Your task to perform on an android device: Check the weather Image 0: 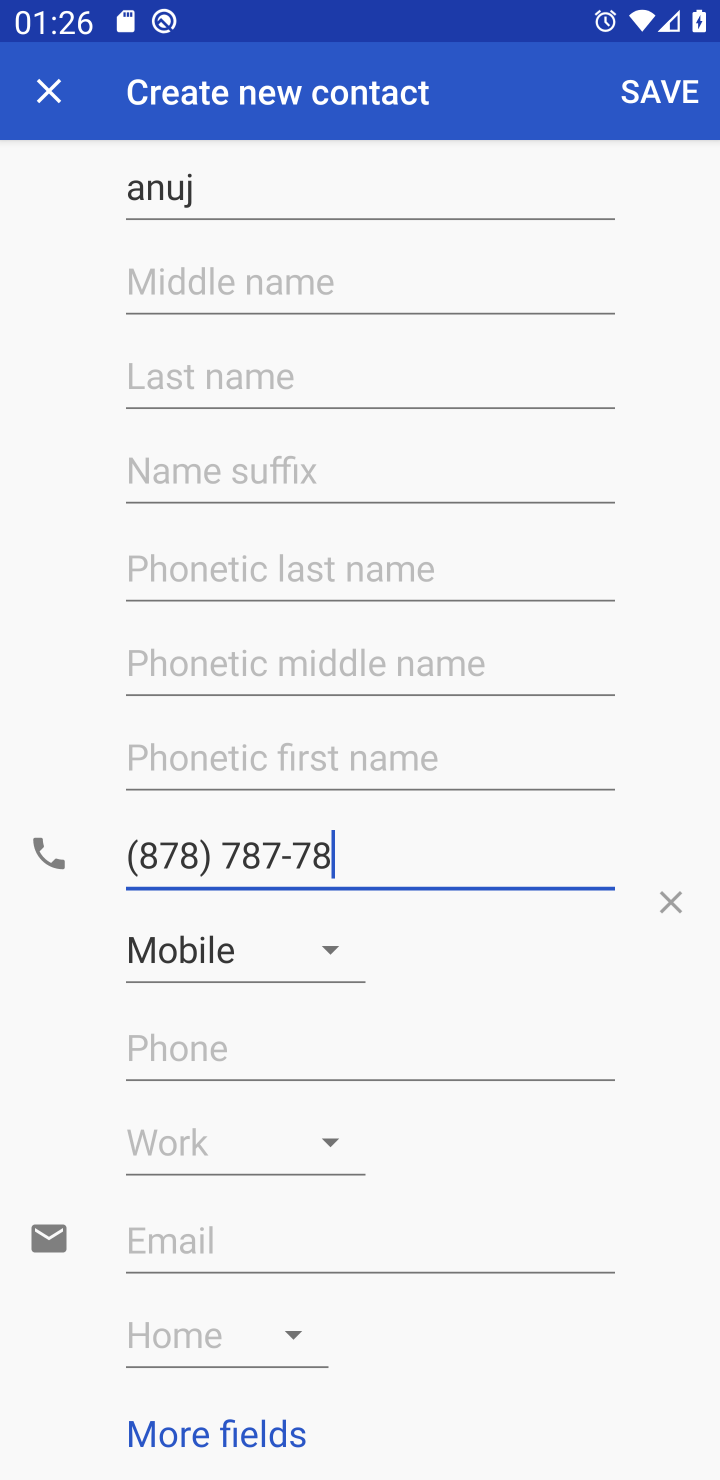
Step 0: press home button
Your task to perform on an android device: Check the weather Image 1: 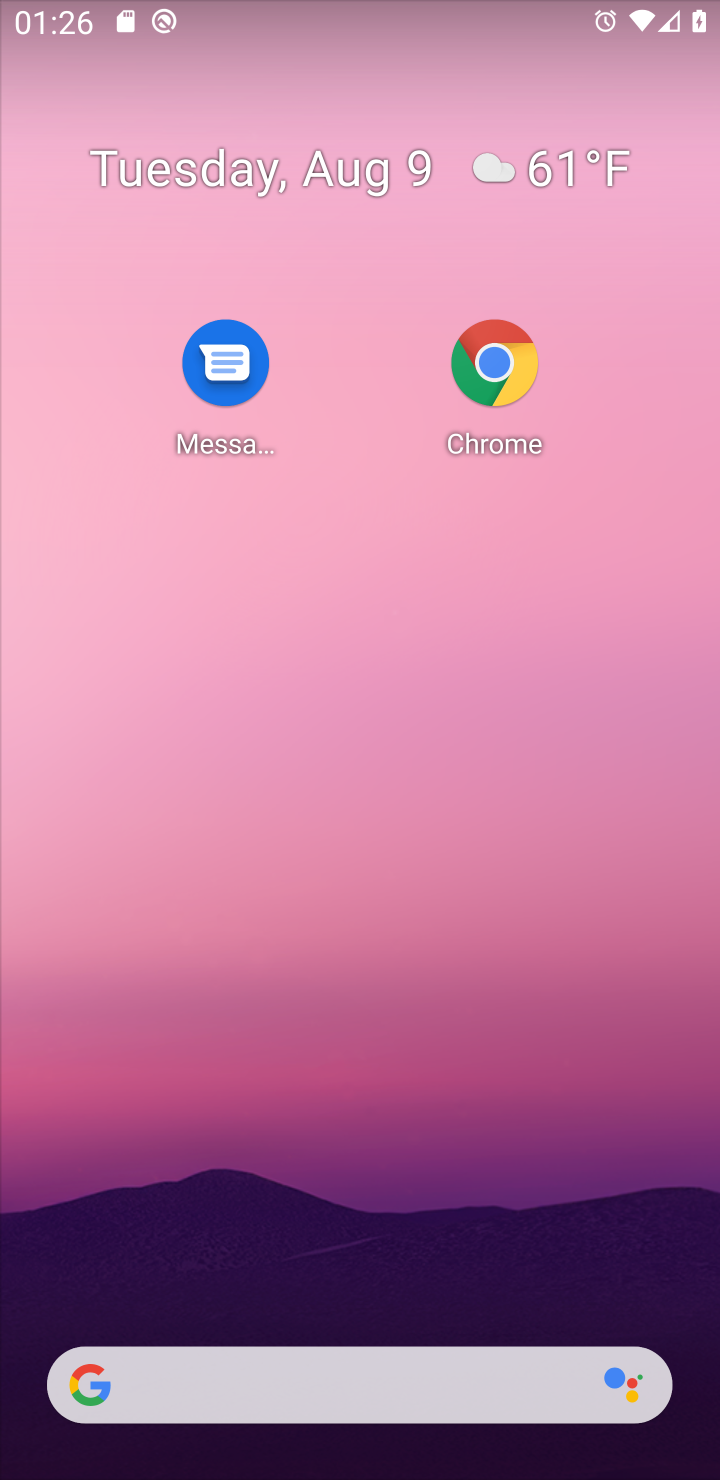
Step 1: drag from (395, 1273) to (447, 272)
Your task to perform on an android device: Check the weather Image 2: 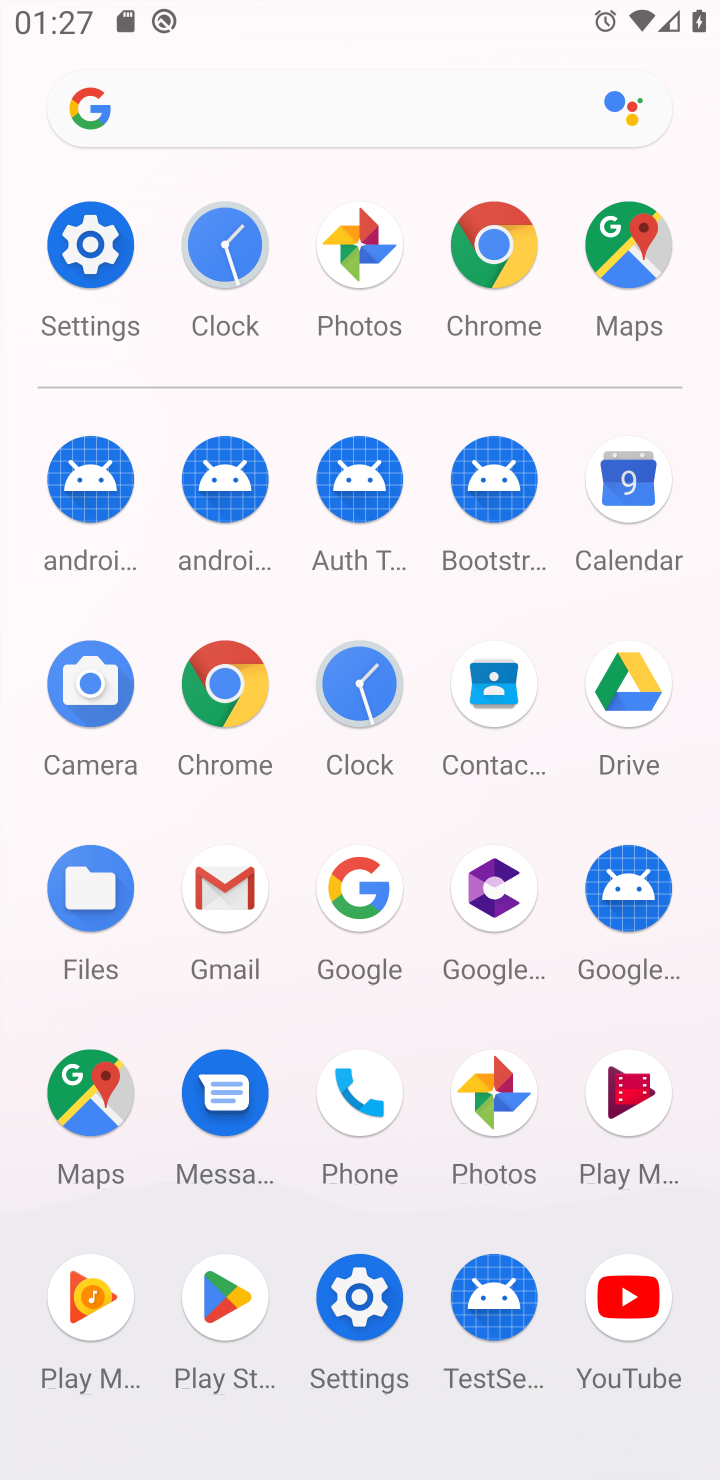
Step 2: click (241, 678)
Your task to perform on an android device: Check the weather Image 3: 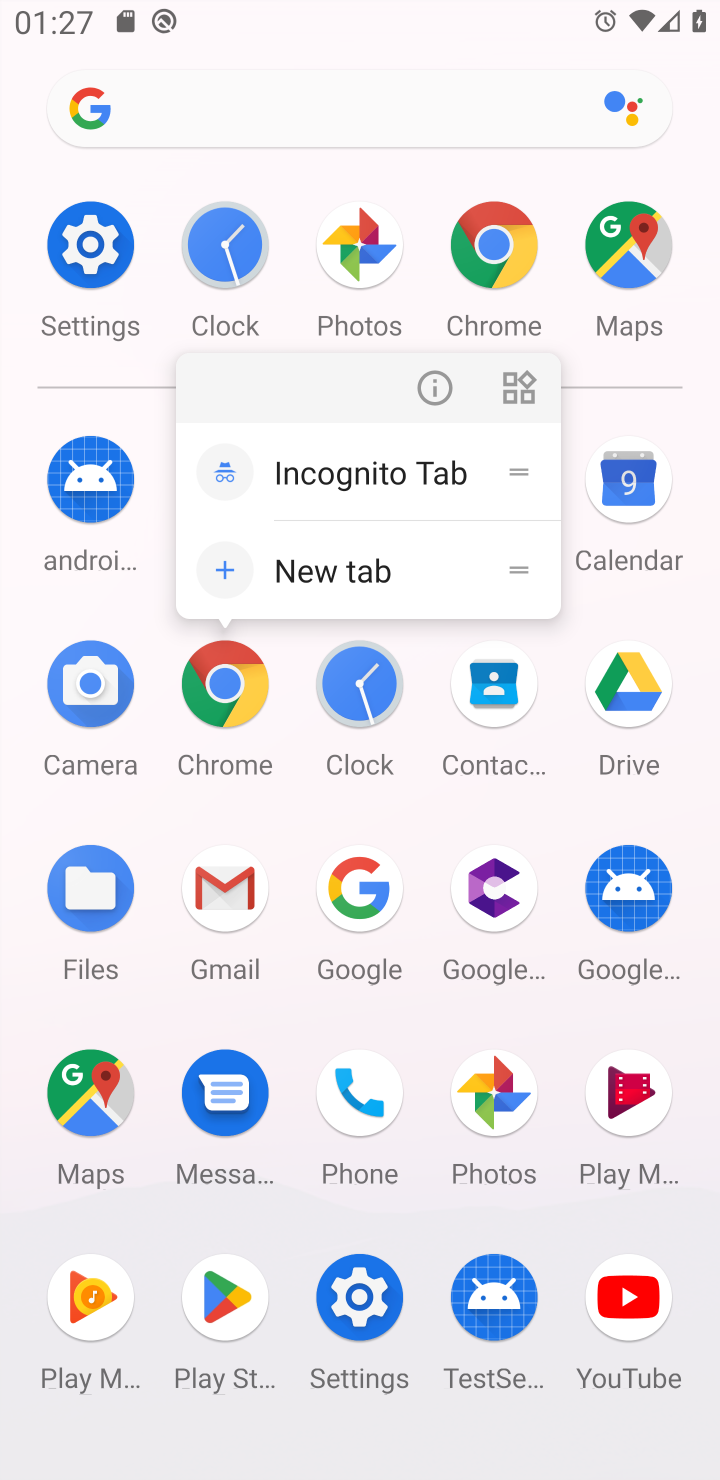
Step 3: click (241, 678)
Your task to perform on an android device: Check the weather Image 4: 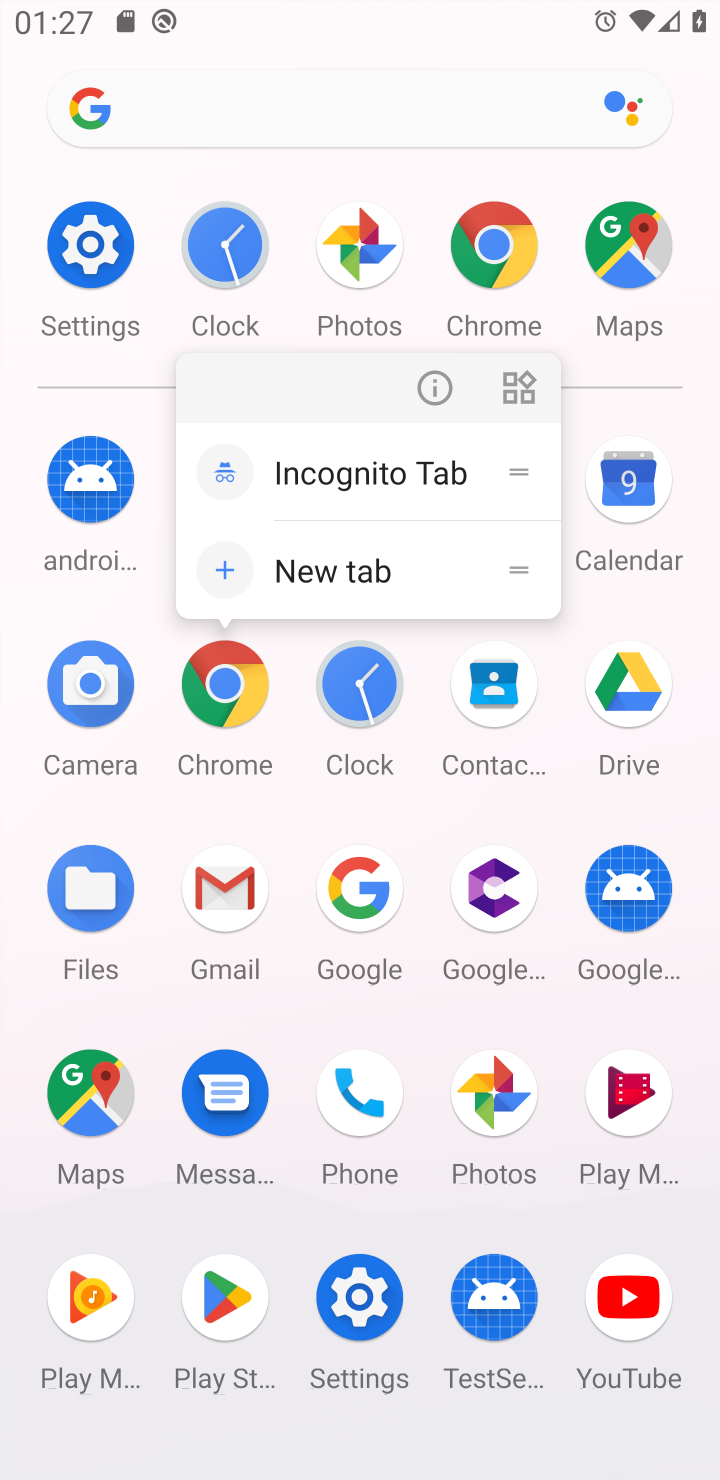
Step 4: click (231, 674)
Your task to perform on an android device: Check the weather Image 5: 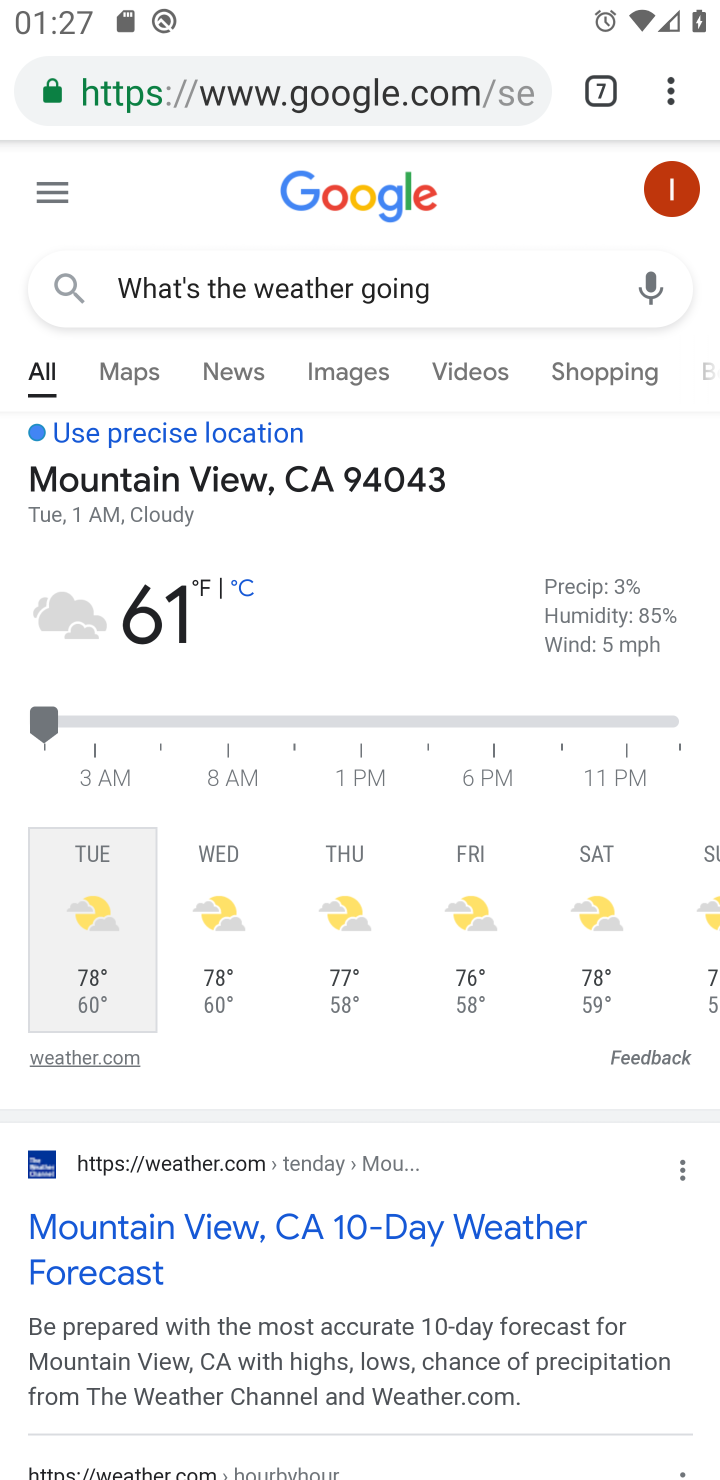
Step 5: click (676, 87)
Your task to perform on an android device: Check the weather Image 6: 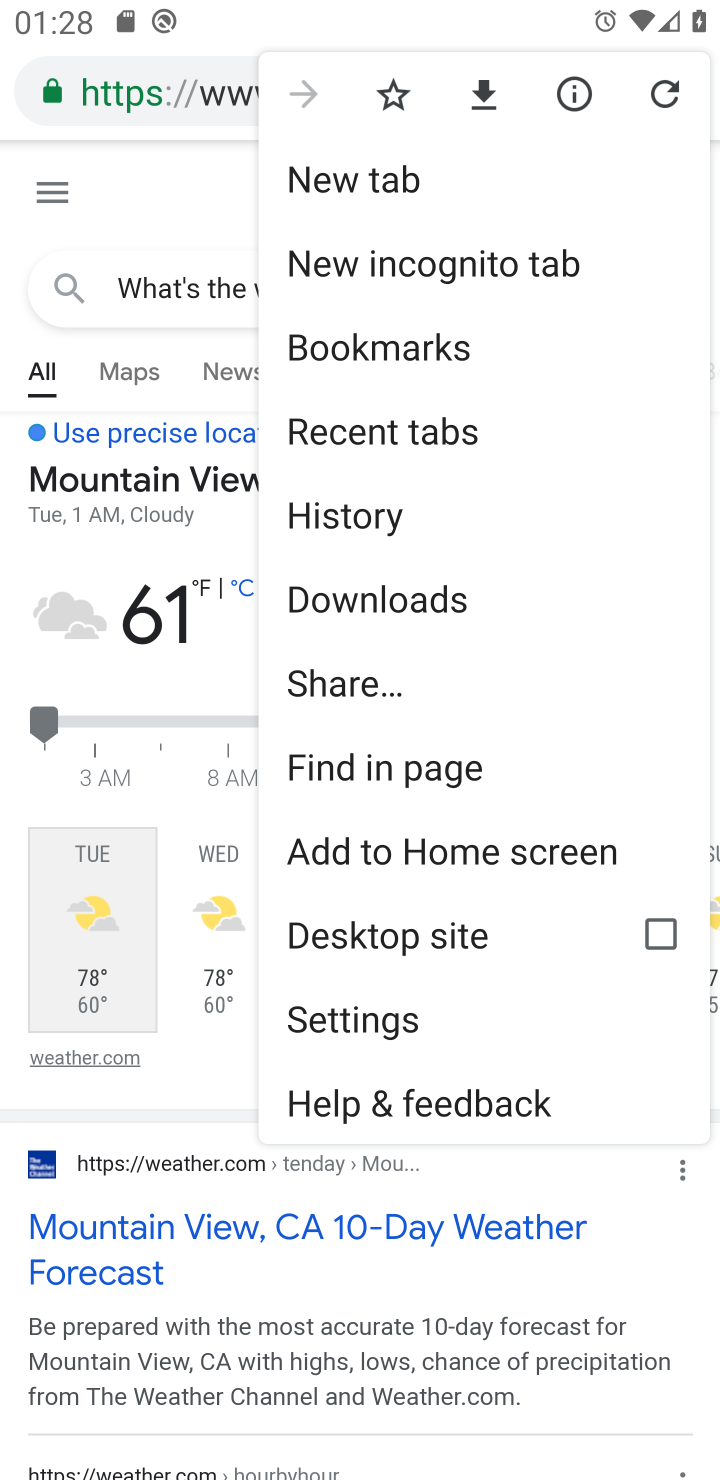
Step 6: click (379, 187)
Your task to perform on an android device: Check the weather Image 7: 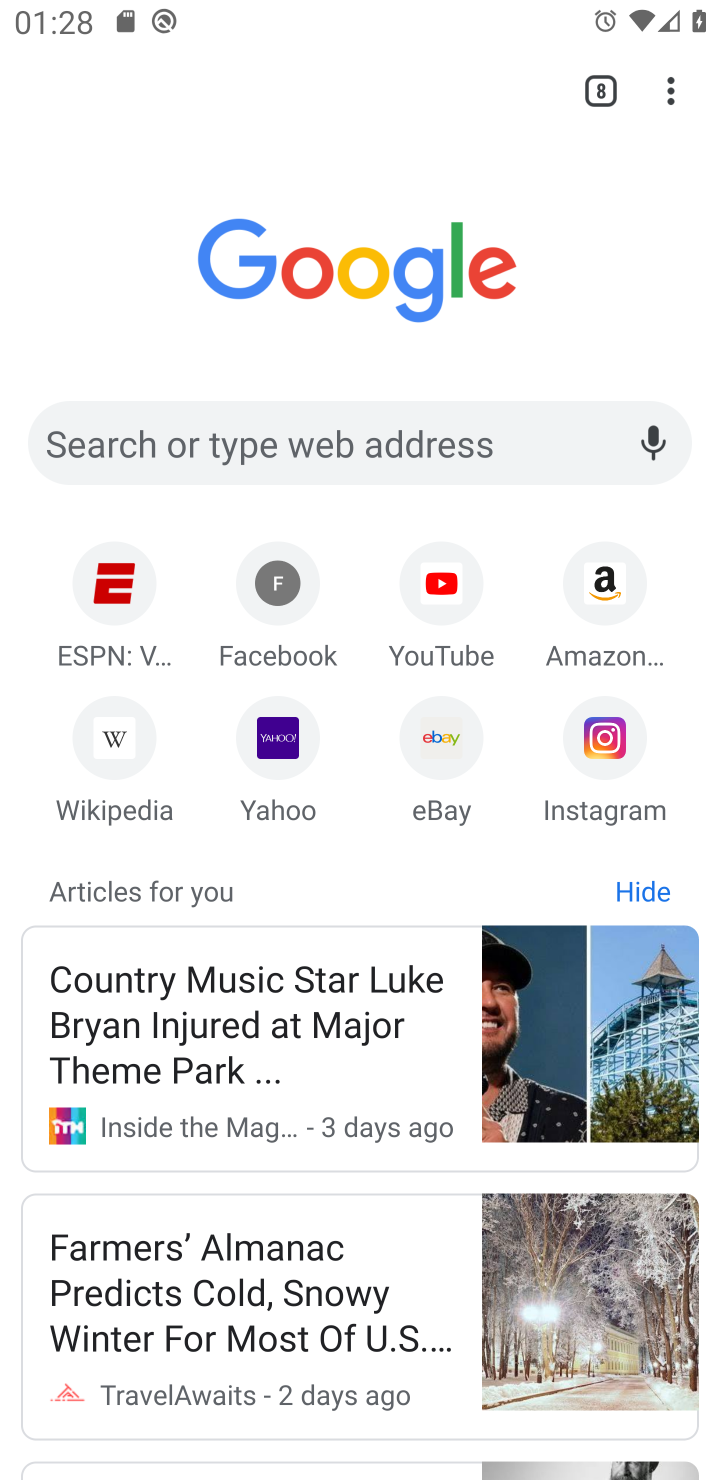
Step 7: click (306, 437)
Your task to perform on an android device: Check the weather Image 8: 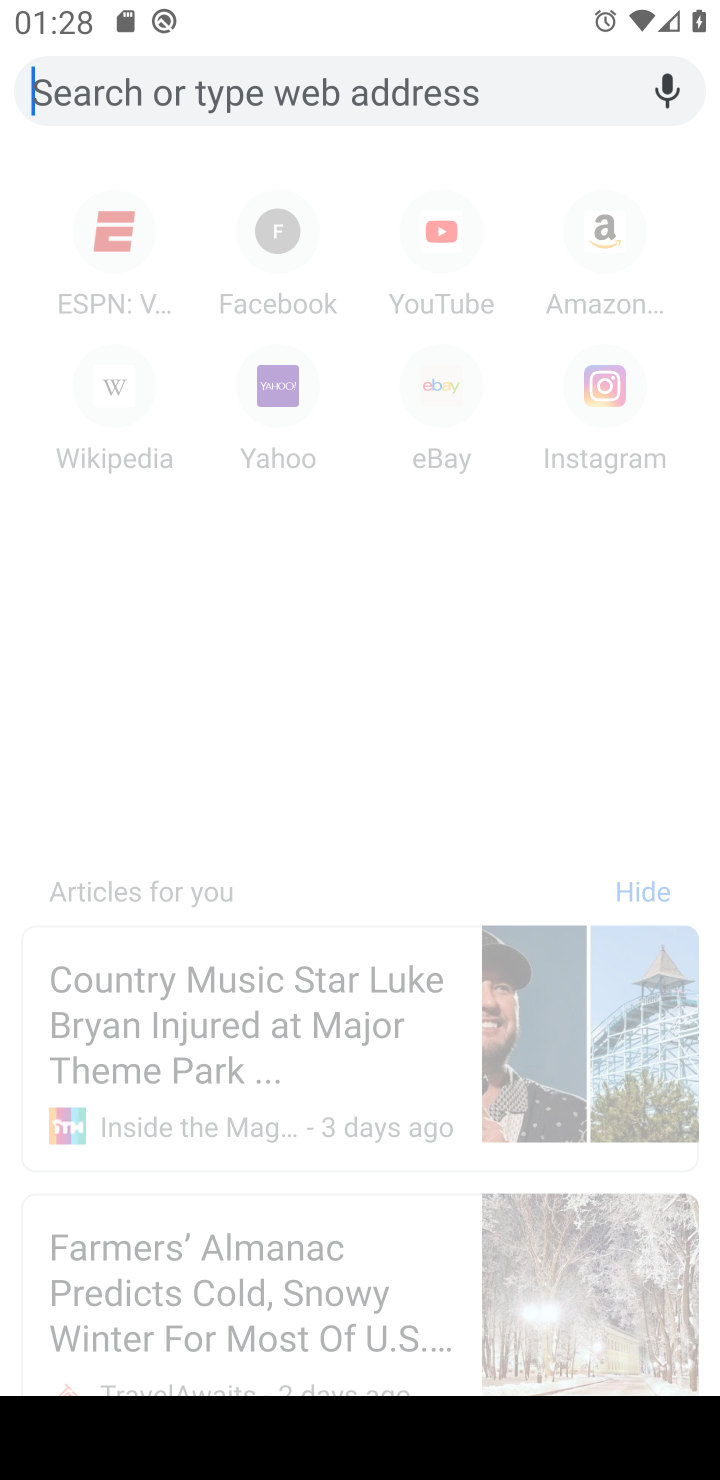
Step 8: type "Check the weather "
Your task to perform on an android device: Check the weather Image 9: 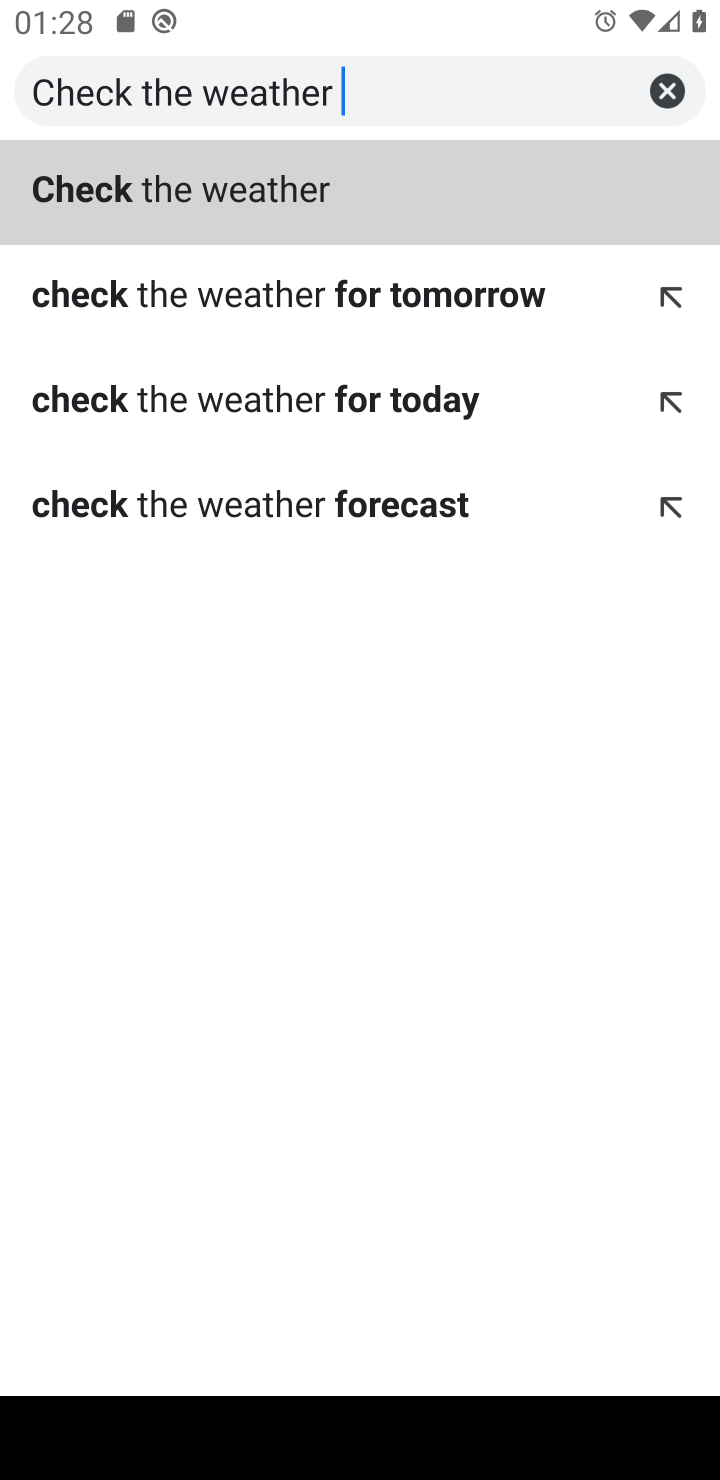
Step 9: click (244, 162)
Your task to perform on an android device: Check the weather Image 10: 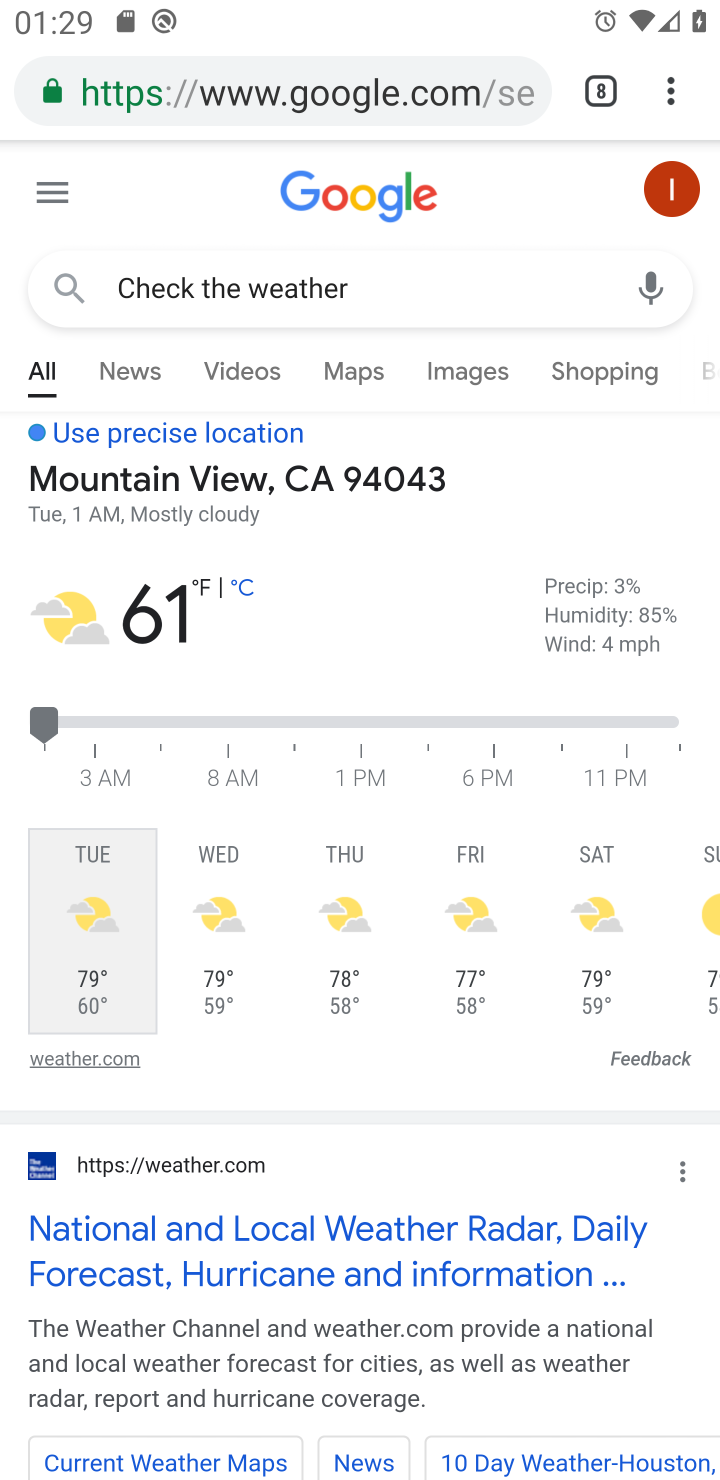
Step 10: task complete